Your task to perform on an android device: check data usage Image 0: 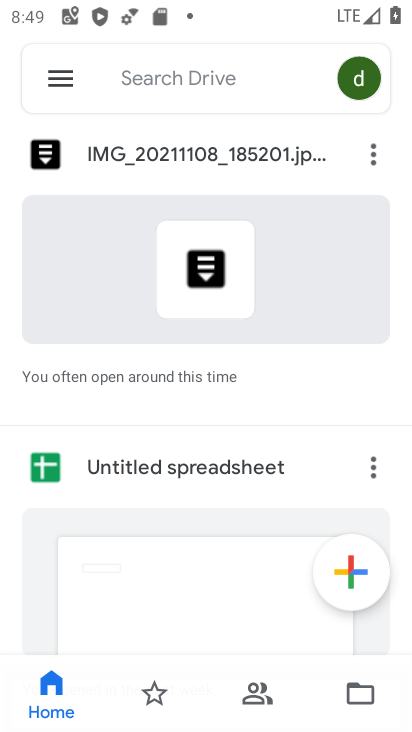
Step 0: press home button
Your task to perform on an android device: check data usage Image 1: 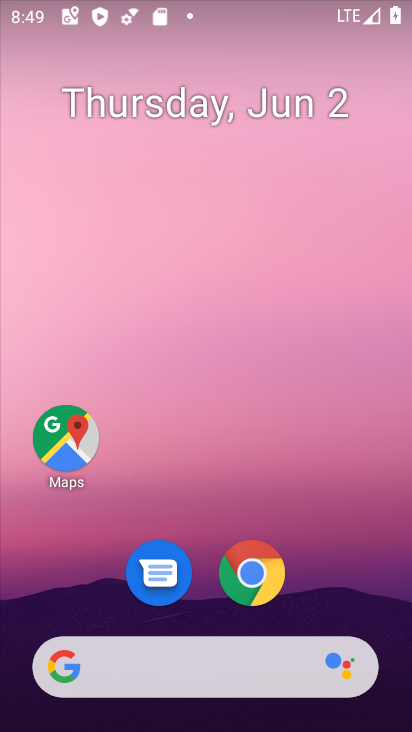
Step 1: drag from (252, 1) to (221, 730)
Your task to perform on an android device: check data usage Image 2: 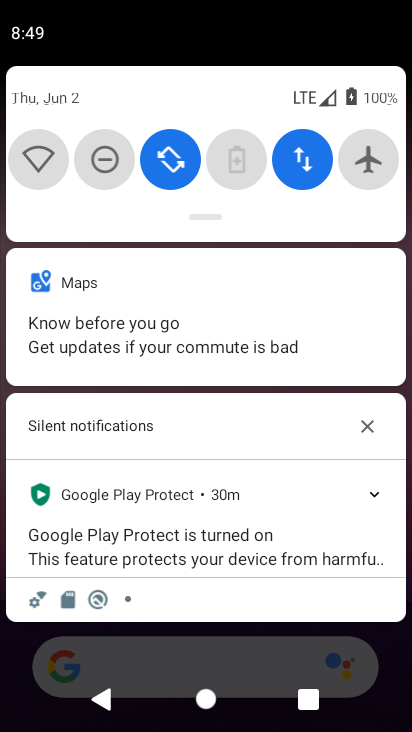
Step 2: click (291, 165)
Your task to perform on an android device: check data usage Image 3: 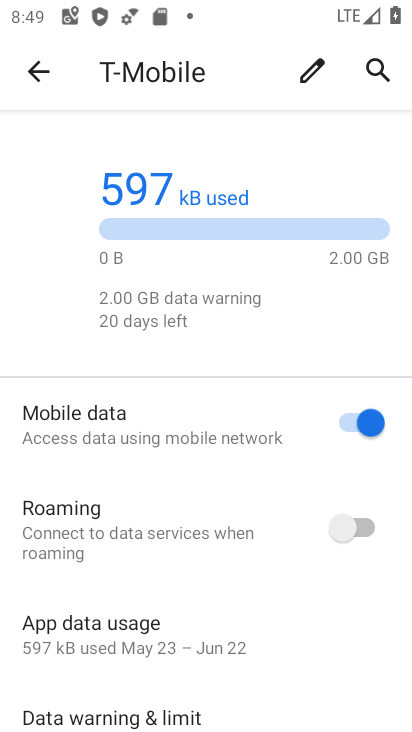
Step 3: task complete